Your task to perform on an android device: What is the recent news? Image 0: 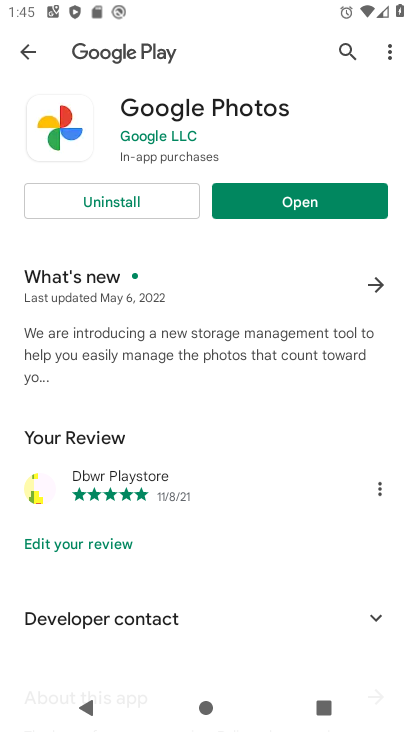
Step 0: press home button
Your task to perform on an android device: What is the recent news? Image 1: 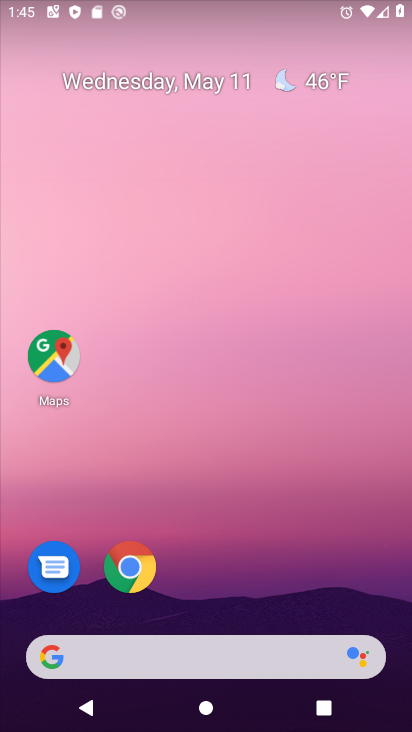
Step 1: task complete